Your task to perform on an android device: open a new tab in the chrome app Image 0: 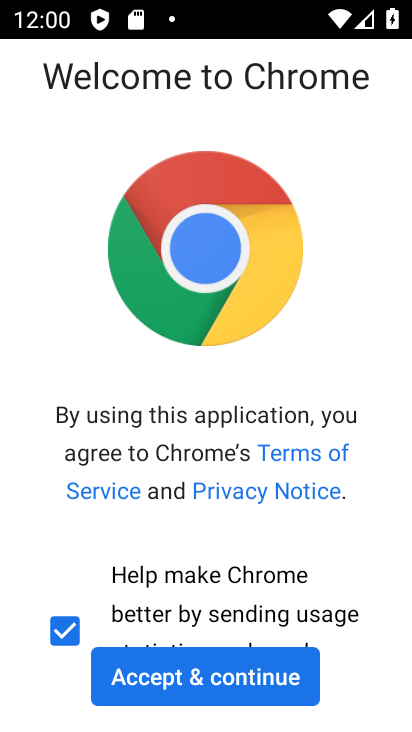
Step 0: click (248, 677)
Your task to perform on an android device: open a new tab in the chrome app Image 1: 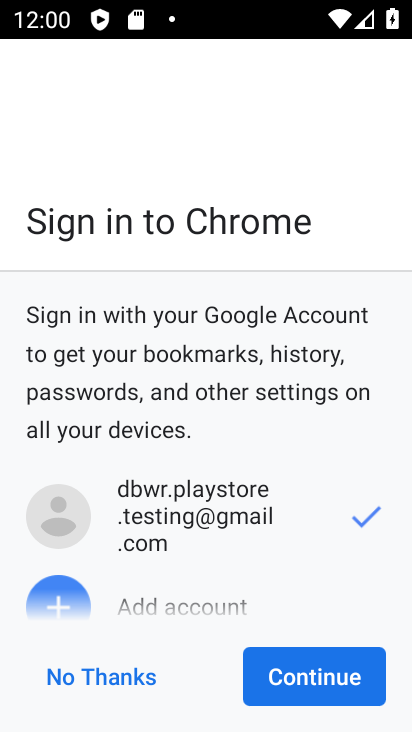
Step 1: click (289, 671)
Your task to perform on an android device: open a new tab in the chrome app Image 2: 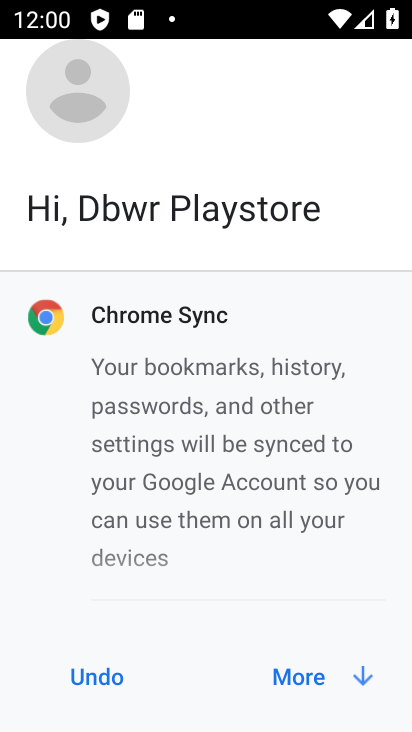
Step 2: click (291, 680)
Your task to perform on an android device: open a new tab in the chrome app Image 3: 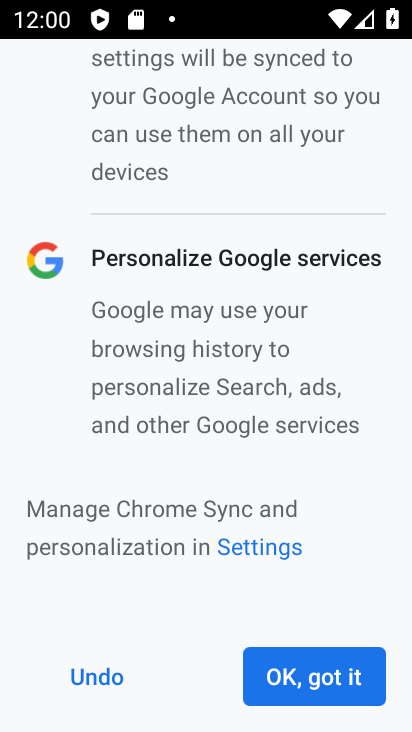
Step 3: click (291, 680)
Your task to perform on an android device: open a new tab in the chrome app Image 4: 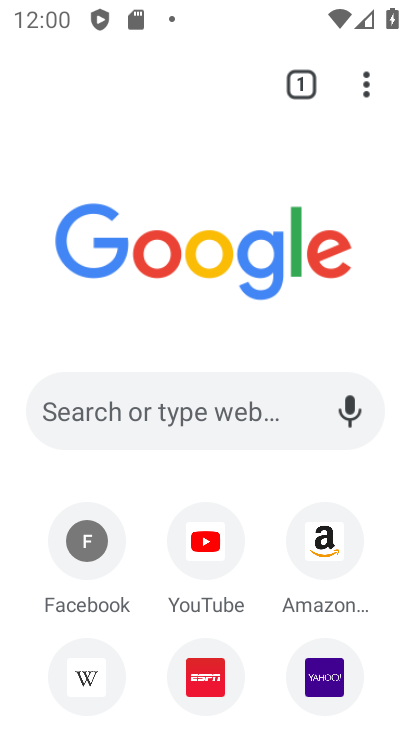
Step 4: click (366, 86)
Your task to perform on an android device: open a new tab in the chrome app Image 5: 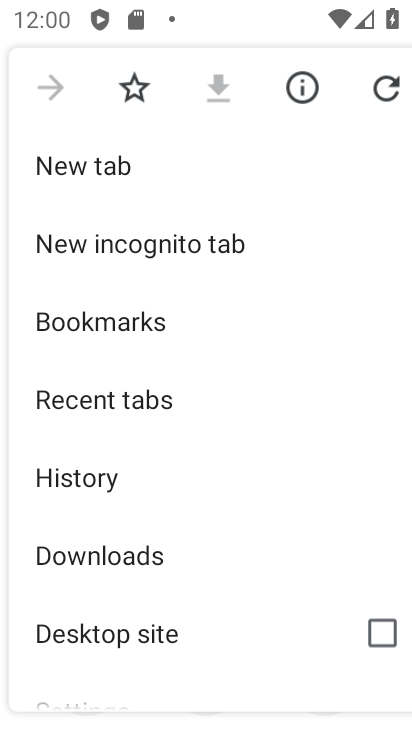
Step 5: click (118, 167)
Your task to perform on an android device: open a new tab in the chrome app Image 6: 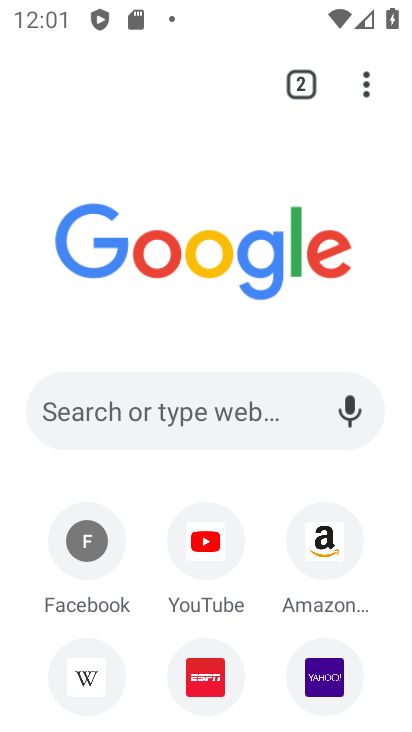
Step 6: task complete